Your task to perform on an android device: empty trash in the gmail app Image 0: 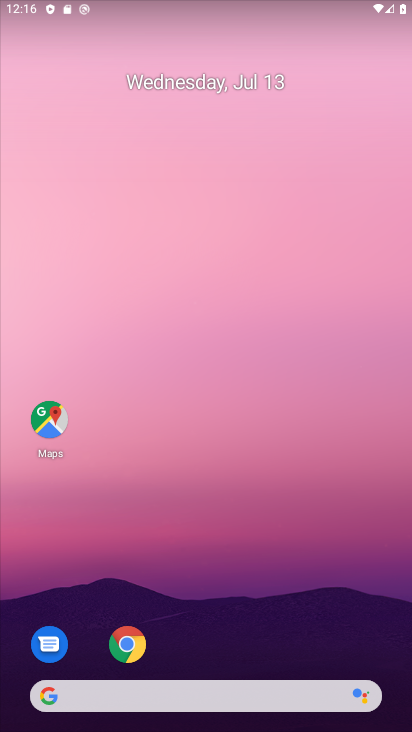
Step 0: drag from (283, 584) to (253, 130)
Your task to perform on an android device: empty trash in the gmail app Image 1: 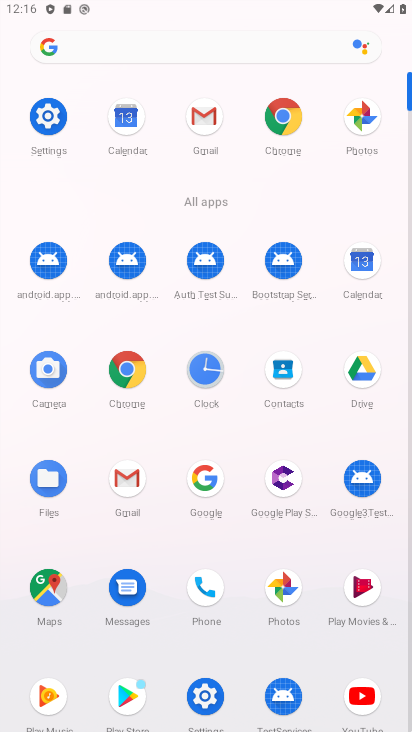
Step 1: click (203, 113)
Your task to perform on an android device: empty trash in the gmail app Image 2: 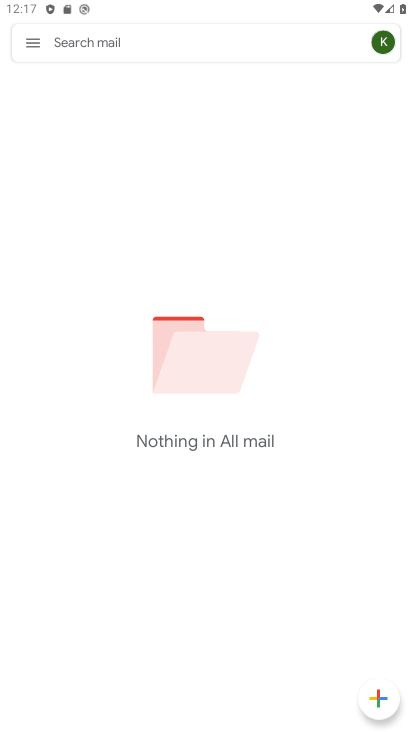
Step 2: click (31, 34)
Your task to perform on an android device: empty trash in the gmail app Image 3: 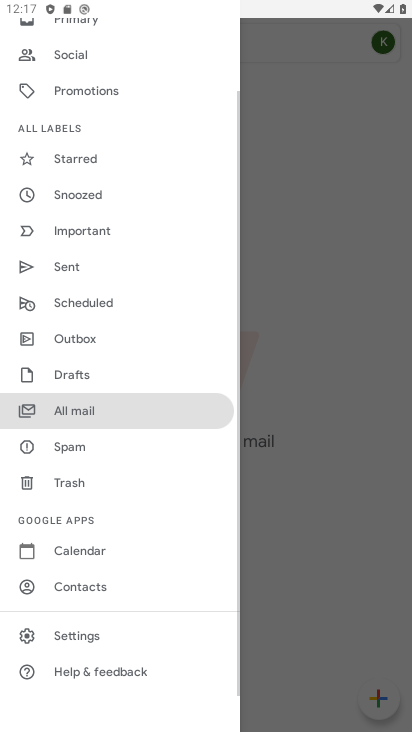
Step 3: click (74, 486)
Your task to perform on an android device: empty trash in the gmail app Image 4: 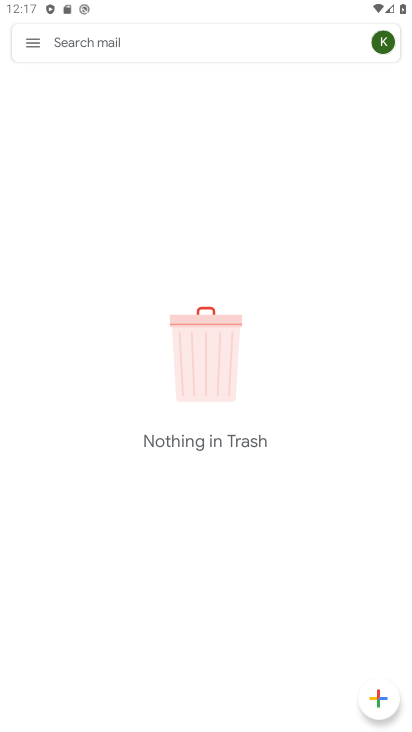
Step 4: task complete